Your task to perform on an android device: snooze an email in the gmail app Image 0: 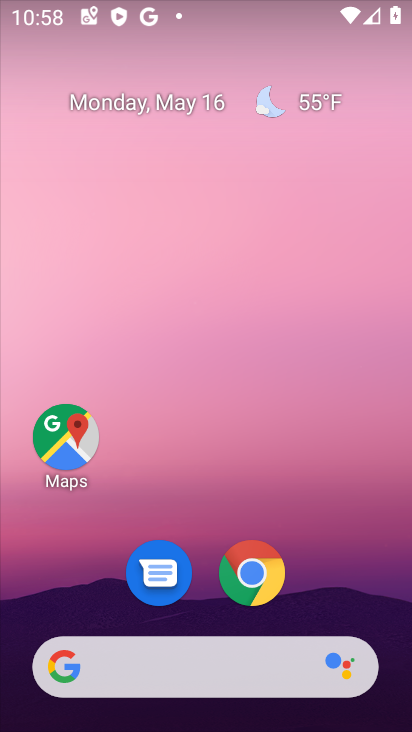
Step 0: drag from (301, 527) to (247, 88)
Your task to perform on an android device: snooze an email in the gmail app Image 1: 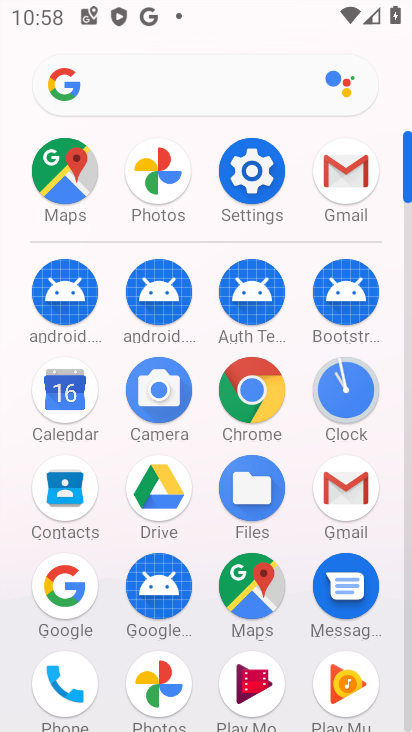
Step 1: click (361, 162)
Your task to perform on an android device: snooze an email in the gmail app Image 2: 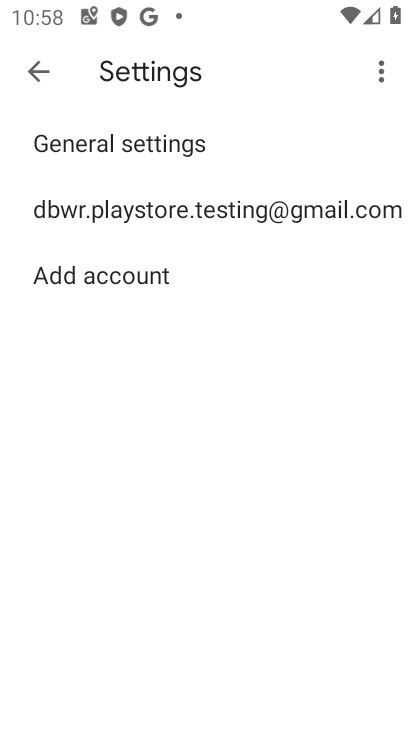
Step 2: click (34, 66)
Your task to perform on an android device: snooze an email in the gmail app Image 3: 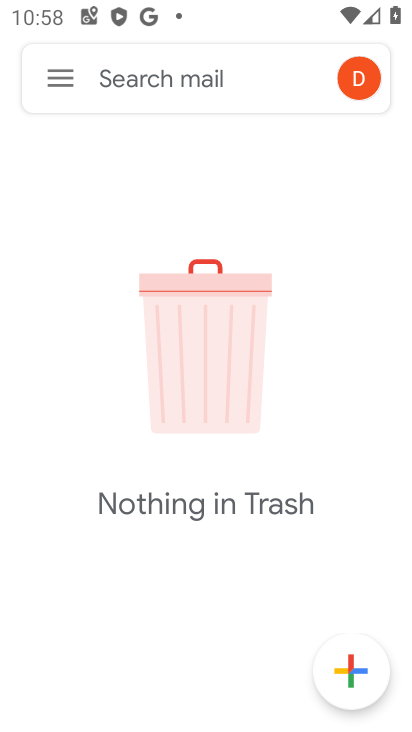
Step 3: click (56, 84)
Your task to perform on an android device: snooze an email in the gmail app Image 4: 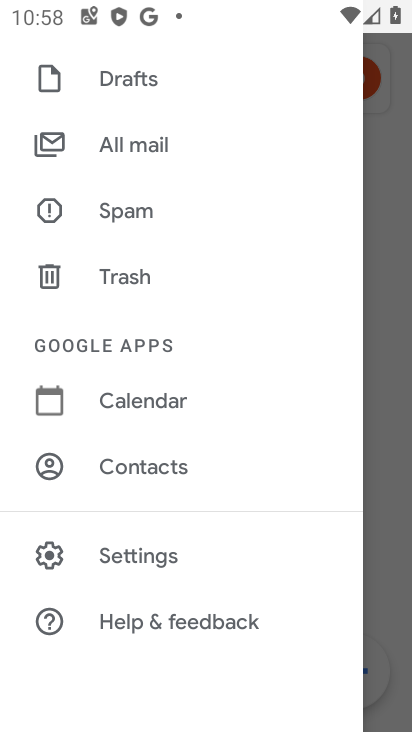
Step 4: click (140, 152)
Your task to perform on an android device: snooze an email in the gmail app Image 5: 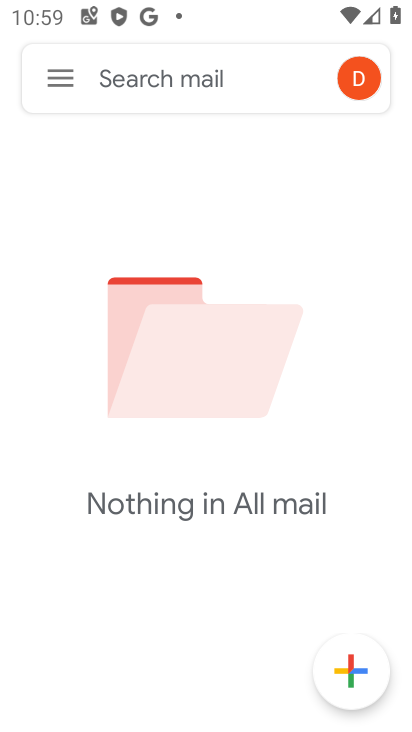
Step 5: task complete